Your task to perform on an android device: Search for Italian restaurants on Maps Image 0: 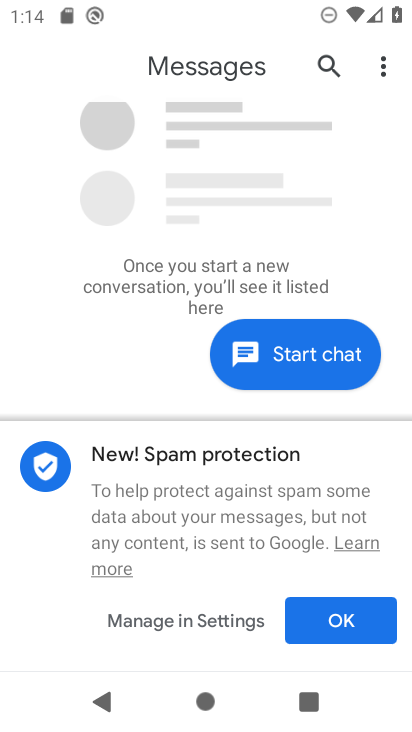
Step 0: press home button
Your task to perform on an android device: Search for Italian restaurants on Maps Image 1: 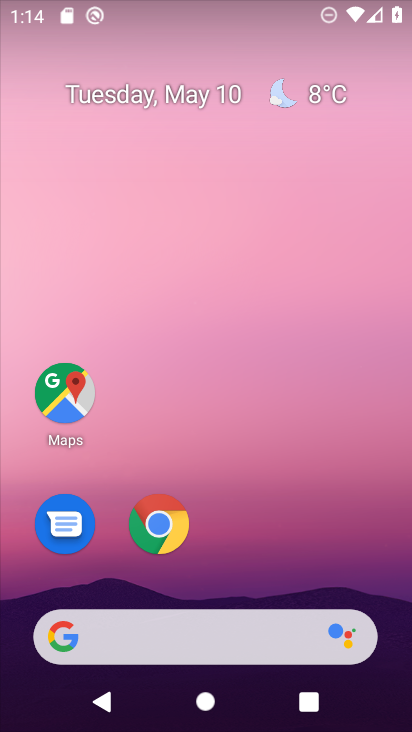
Step 1: click (67, 397)
Your task to perform on an android device: Search for Italian restaurants on Maps Image 2: 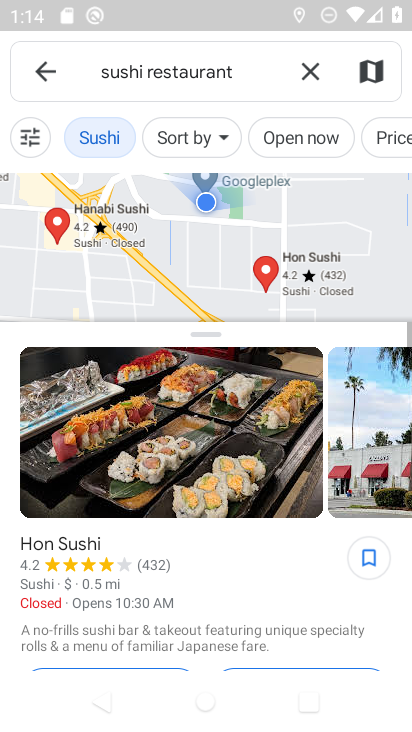
Step 2: click (311, 62)
Your task to perform on an android device: Search for Italian restaurants on Maps Image 3: 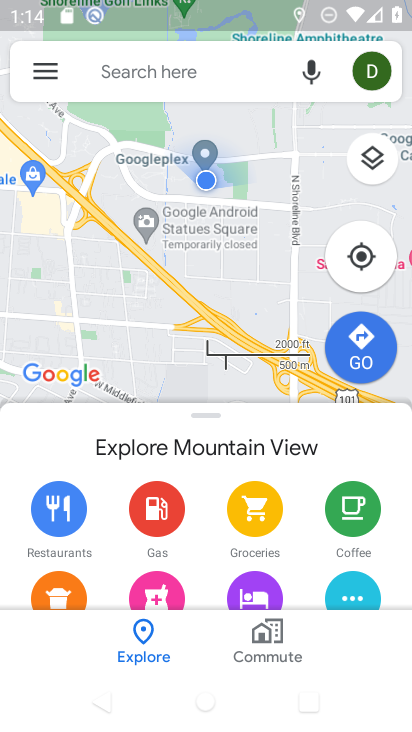
Step 3: click (260, 62)
Your task to perform on an android device: Search for Italian restaurants on Maps Image 4: 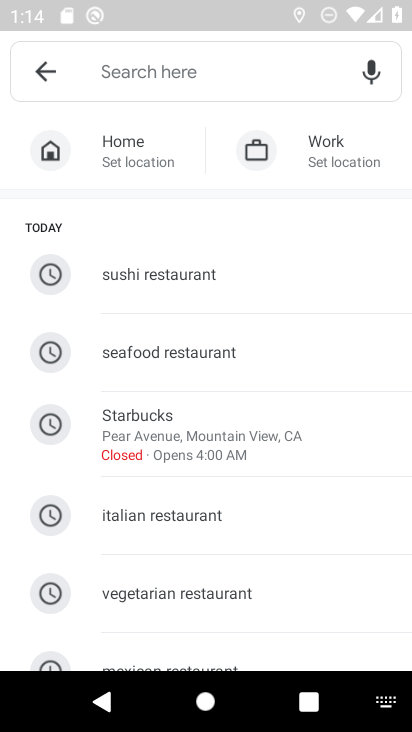
Step 4: click (174, 513)
Your task to perform on an android device: Search for Italian restaurants on Maps Image 5: 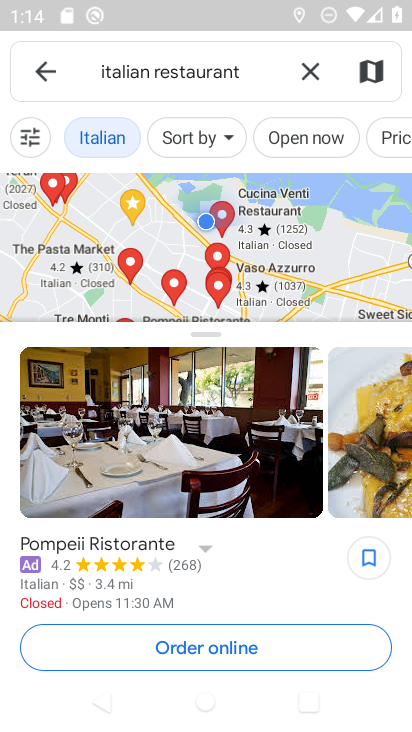
Step 5: task complete